Your task to perform on an android device: Open notification settings Image 0: 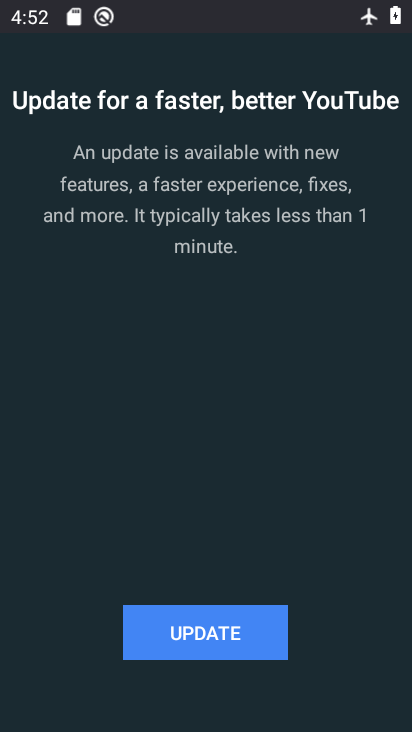
Step 0: press home button
Your task to perform on an android device: Open notification settings Image 1: 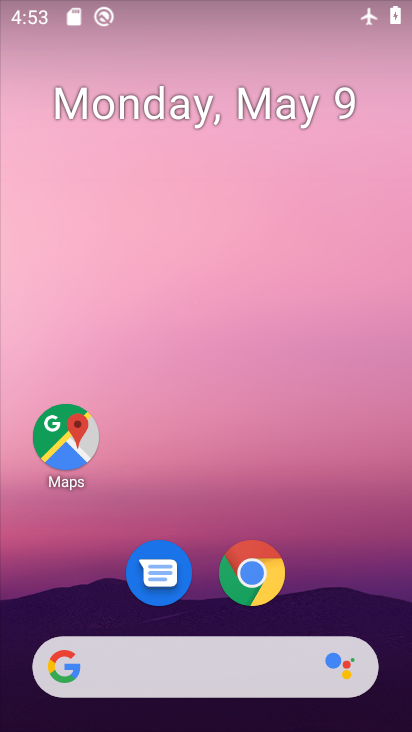
Step 1: drag from (385, 630) to (234, 101)
Your task to perform on an android device: Open notification settings Image 2: 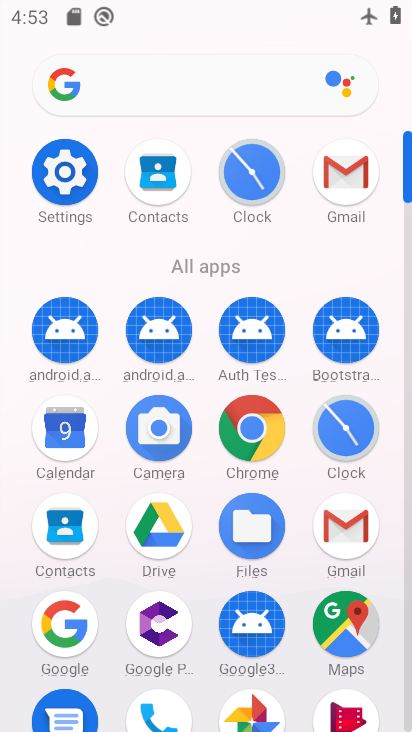
Step 2: click (406, 693)
Your task to perform on an android device: Open notification settings Image 3: 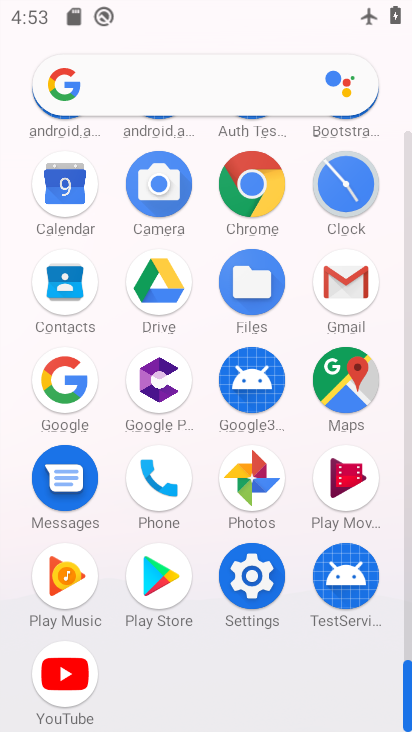
Step 3: click (252, 569)
Your task to perform on an android device: Open notification settings Image 4: 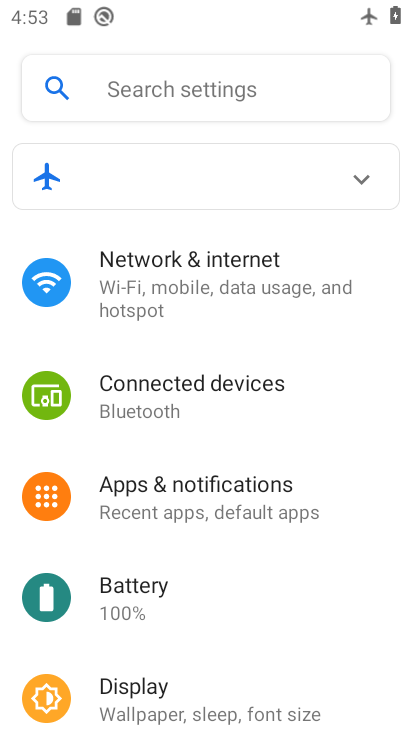
Step 4: click (148, 509)
Your task to perform on an android device: Open notification settings Image 5: 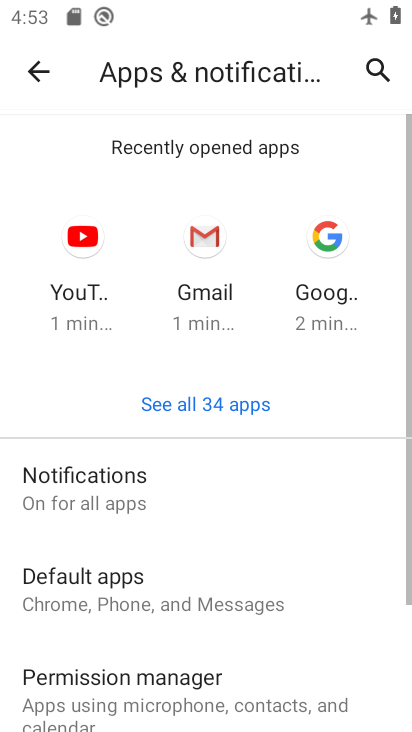
Step 5: drag from (252, 599) to (289, 322)
Your task to perform on an android device: Open notification settings Image 6: 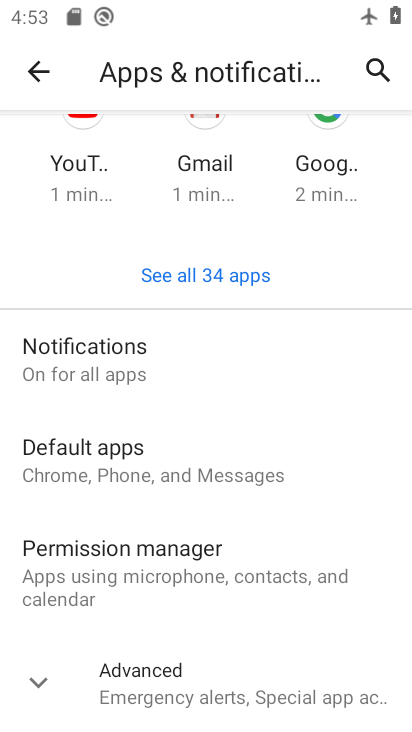
Step 6: click (83, 360)
Your task to perform on an android device: Open notification settings Image 7: 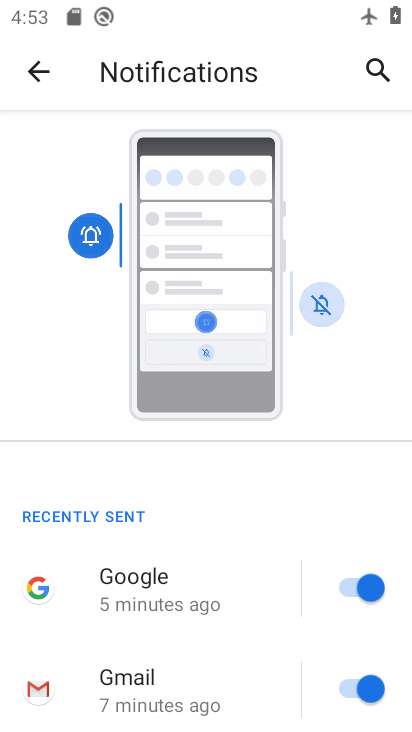
Step 7: drag from (259, 633) to (211, 126)
Your task to perform on an android device: Open notification settings Image 8: 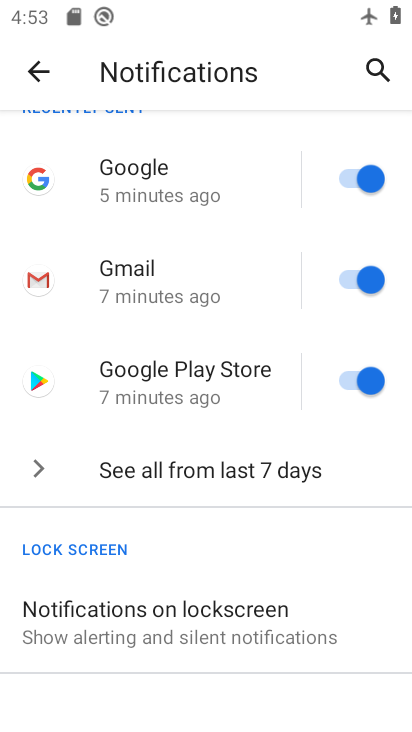
Step 8: drag from (261, 598) to (202, 88)
Your task to perform on an android device: Open notification settings Image 9: 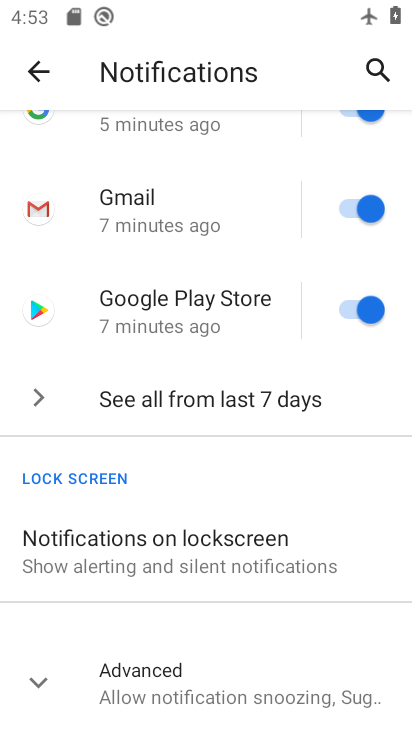
Step 9: click (41, 692)
Your task to perform on an android device: Open notification settings Image 10: 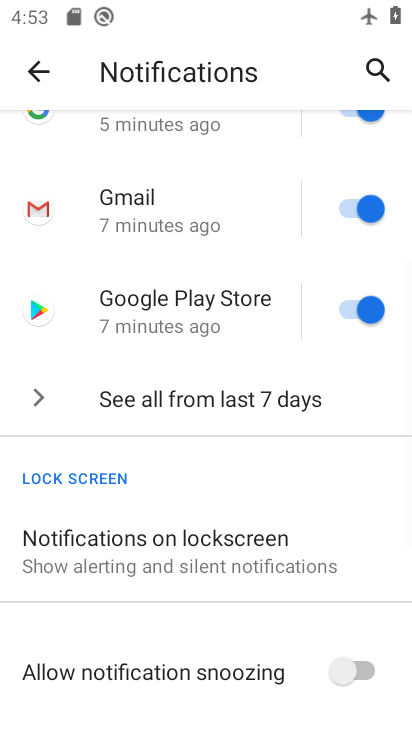
Step 10: task complete